Your task to perform on an android device: clear all cookies in the chrome app Image 0: 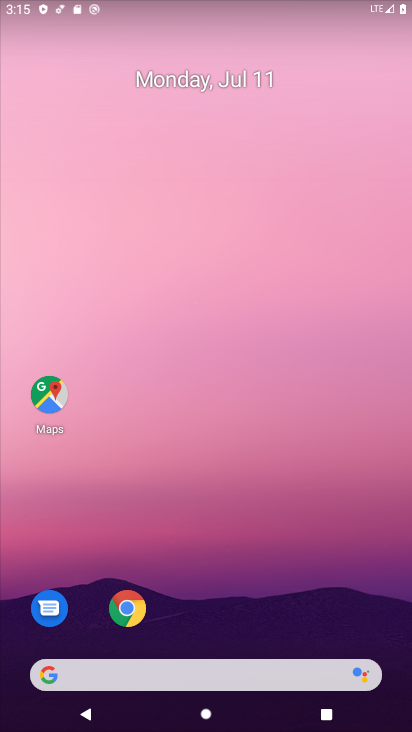
Step 0: click (138, 611)
Your task to perform on an android device: clear all cookies in the chrome app Image 1: 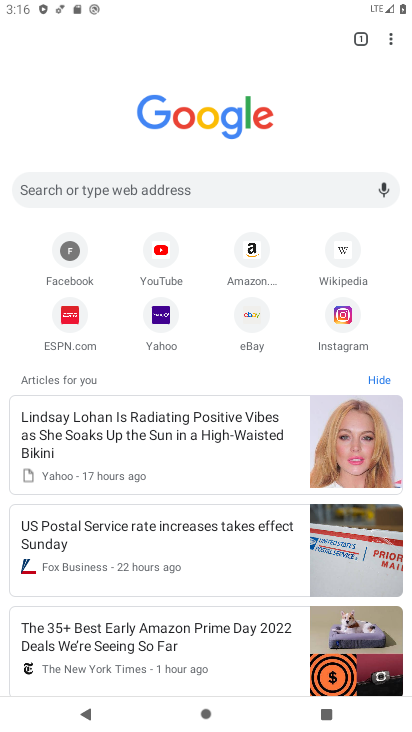
Step 1: click (402, 37)
Your task to perform on an android device: clear all cookies in the chrome app Image 2: 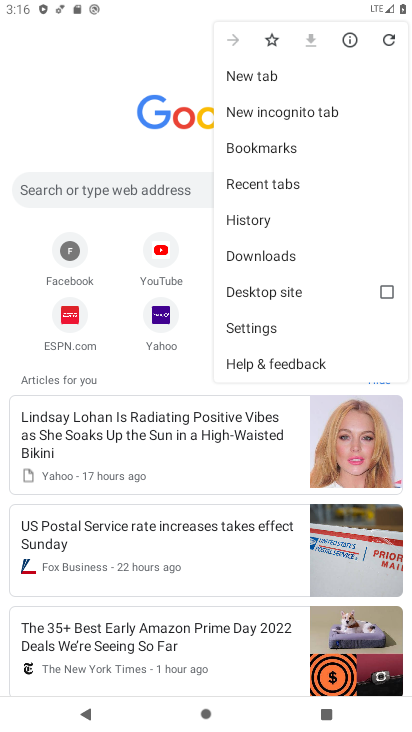
Step 2: click (289, 220)
Your task to perform on an android device: clear all cookies in the chrome app Image 3: 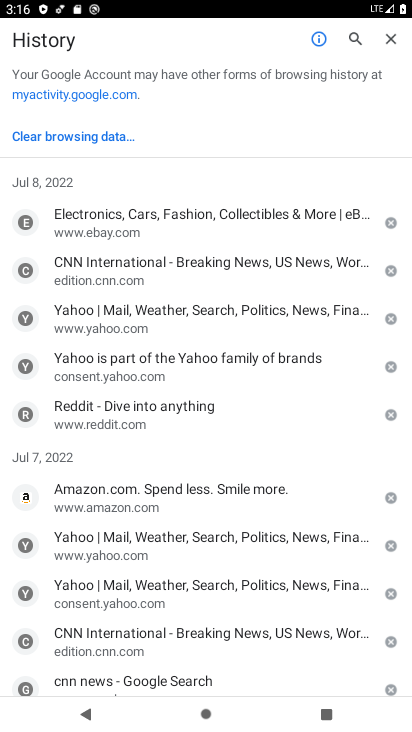
Step 3: click (78, 142)
Your task to perform on an android device: clear all cookies in the chrome app Image 4: 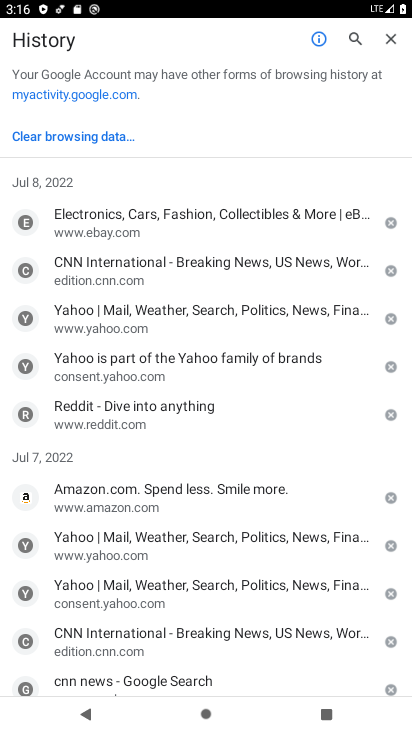
Step 4: click (78, 142)
Your task to perform on an android device: clear all cookies in the chrome app Image 5: 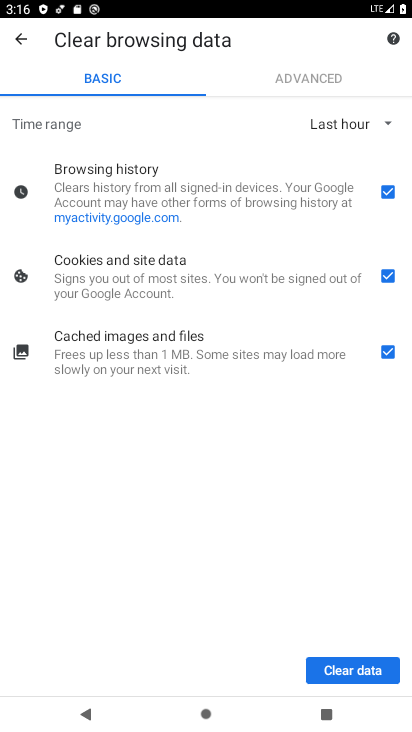
Step 5: click (387, 187)
Your task to perform on an android device: clear all cookies in the chrome app Image 6: 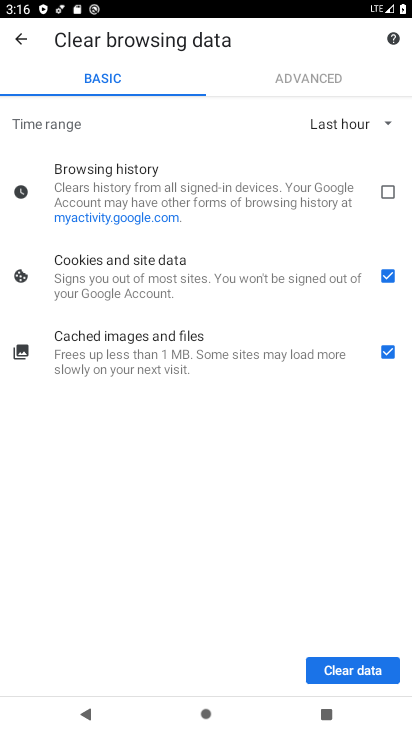
Step 6: click (393, 353)
Your task to perform on an android device: clear all cookies in the chrome app Image 7: 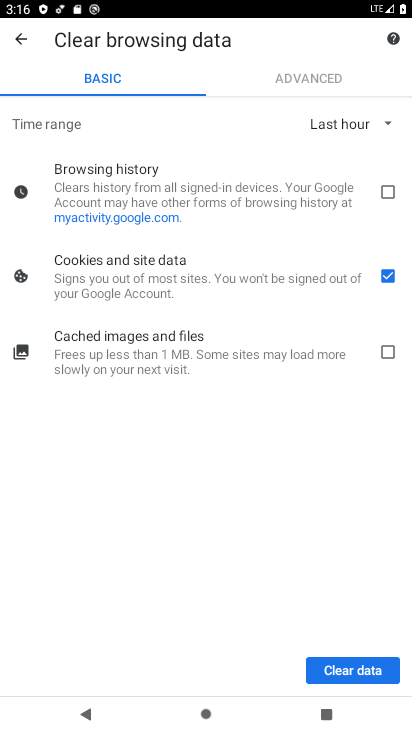
Step 7: click (343, 668)
Your task to perform on an android device: clear all cookies in the chrome app Image 8: 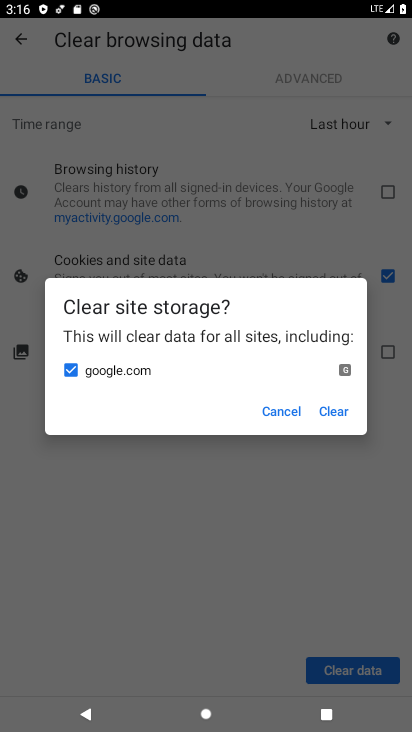
Step 8: click (328, 415)
Your task to perform on an android device: clear all cookies in the chrome app Image 9: 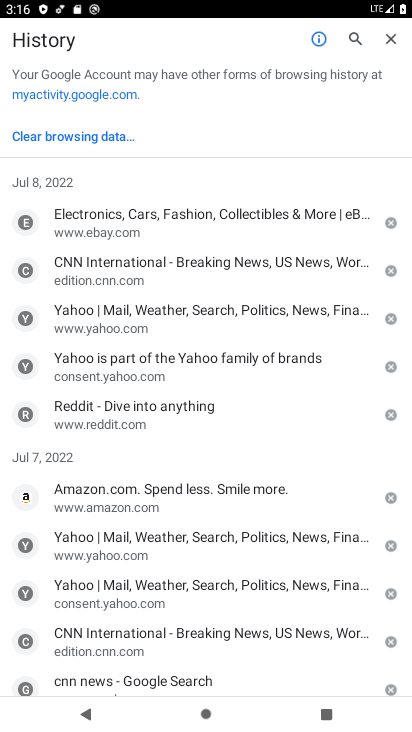
Step 9: task complete